Your task to perform on an android device: Open the calendar and show me this week's events? Image 0: 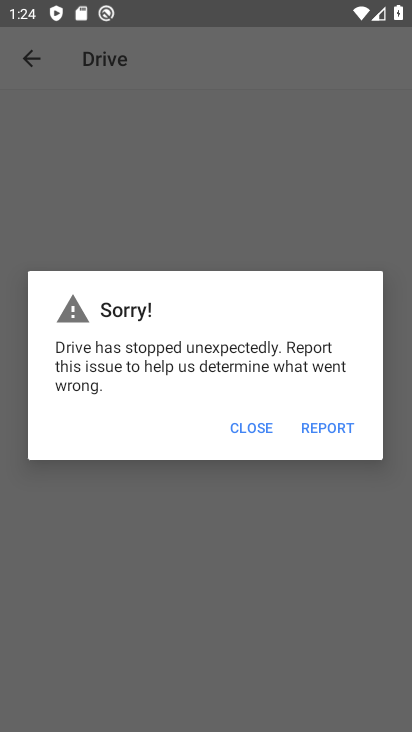
Step 0: press back button
Your task to perform on an android device: Open the calendar and show me this week's events? Image 1: 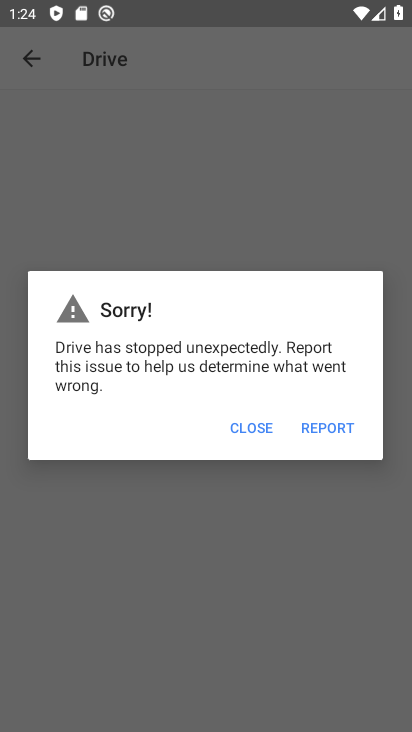
Step 1: press back button
Your task to perform on an android device: Open the calendar and show me this week's events? Image 2: 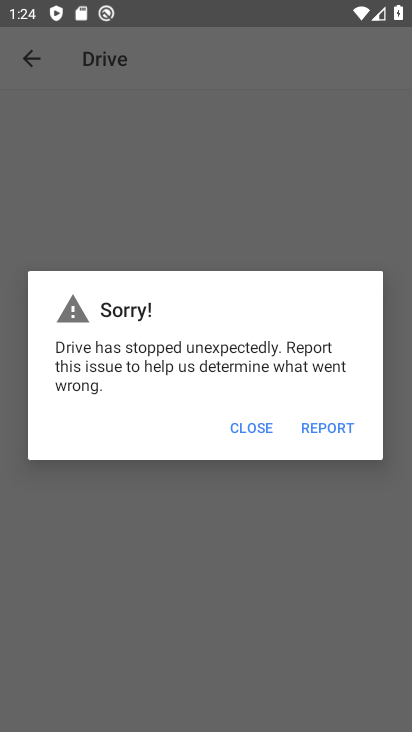
Step 2: press back button
Your task to perform on an android device: Open the calendar and show me this week's events? Image 3: 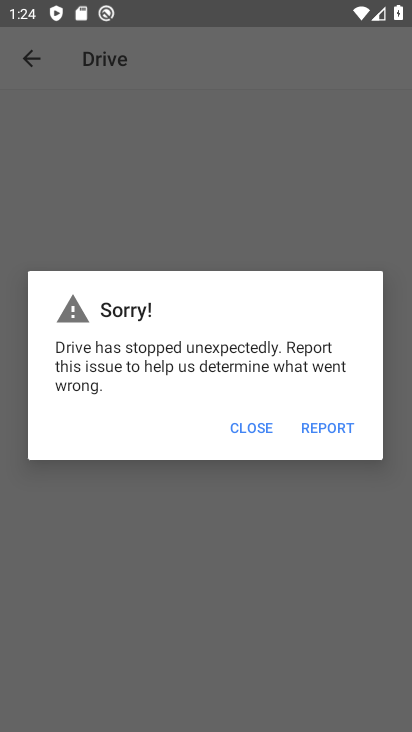
Step 3: press back button
Your task to perform on an android device: Open the calendar and show me this week's events? Image 4: 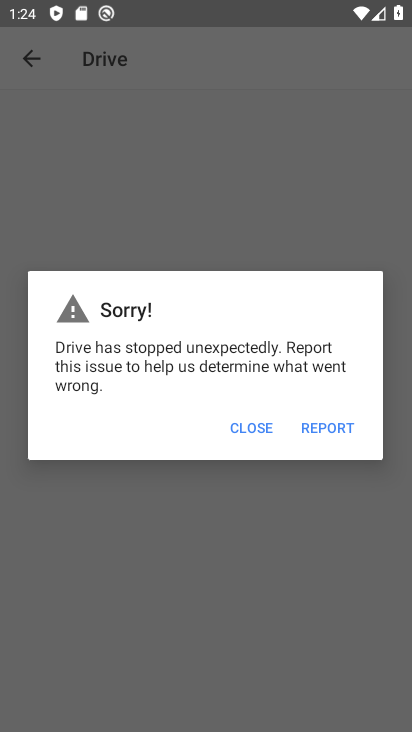
Step 4: press back button
Your task to perform on an android device: Open the calendar and show me this week's events? Image 5: 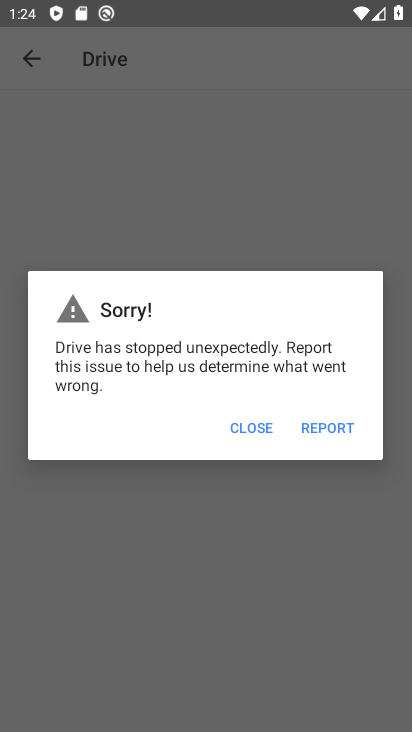
Step 5: click (241, 423)
Your task to perform on an android device: Open the calendar and show me this week's events? Image 6: 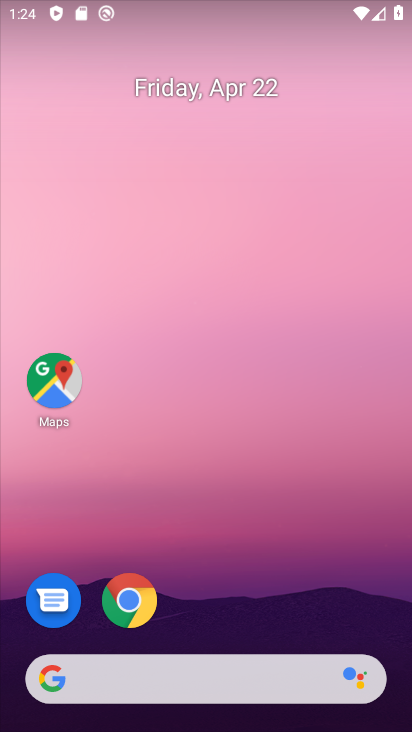
Step 6: drag from (214, 639) to (323, 134)
Your task to perform on an android device: Open the calendar and show me this week's events? Image 7: 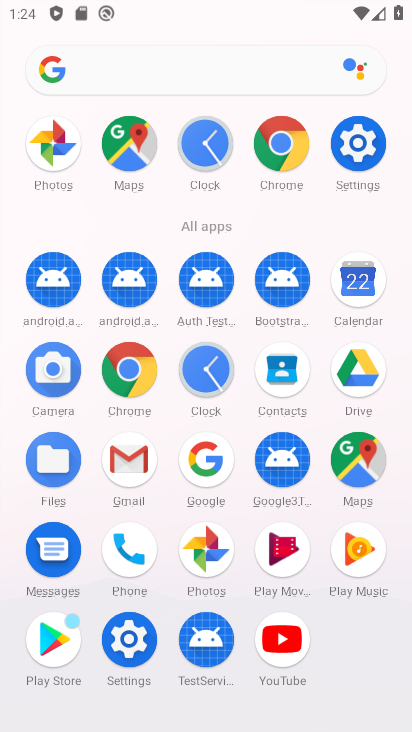
Step 7: click (349, 301)
Your task to perform on an android device: Open the calendar and show me this week's events? Image 8: 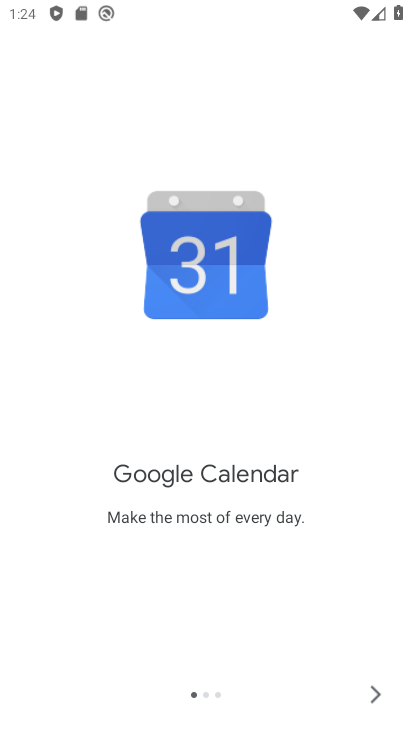
Step 8: click (380, 698)
Your task to perform on an android device: Open the calendar and show me this week's events? Image 9: 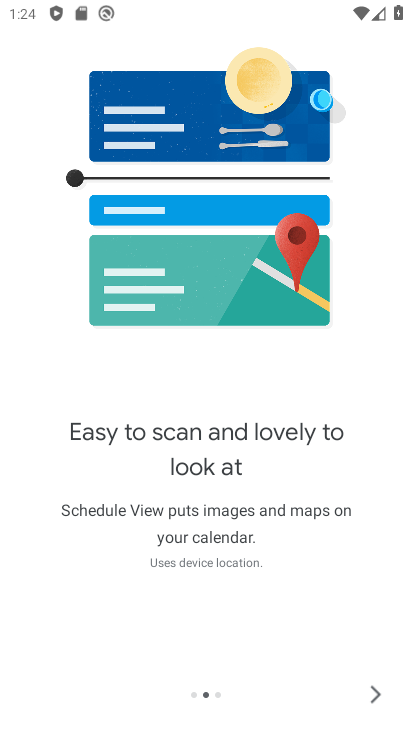
Step 9: click (381, 696)
Your task to perform on an android device: Open the calendar and show me this week's events? Image 10: 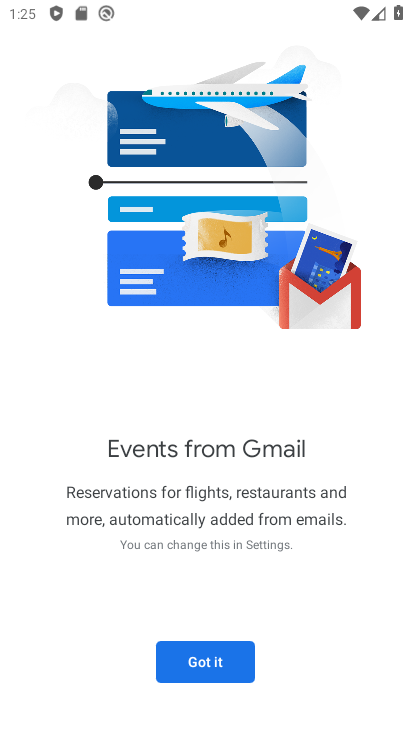
Step 10: click (222, 663)
Your task to perform on an android device: Open the calendar and show me this week's events? Image 11: 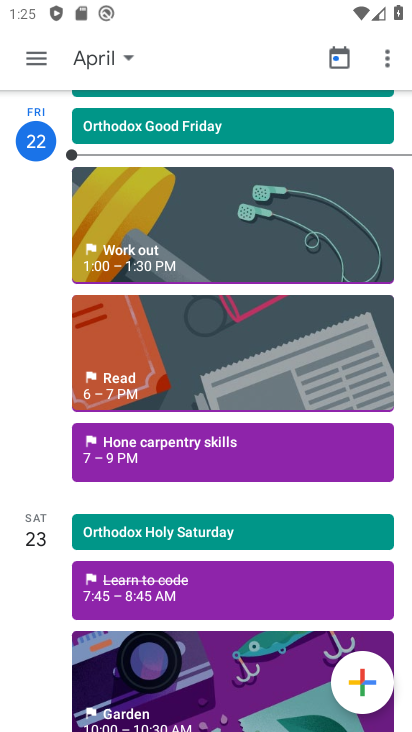
Step 11: click (52, 57)
Your task to perform on an android device: Open the calendar and show me this week's events? Image 12: 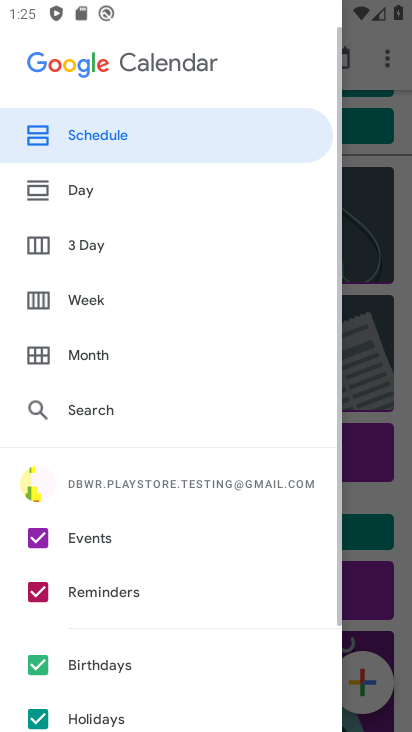
Step 12: click (127, 299)
Your task to perform on an android device: Open the calendar and show me this week's events? Image 13: 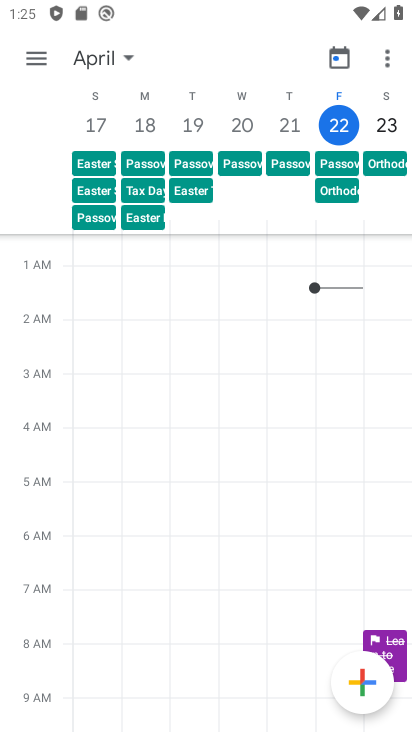
Step 13: task complete